Your task to perform on an android device: open a new tab in the chrome app Image 0: 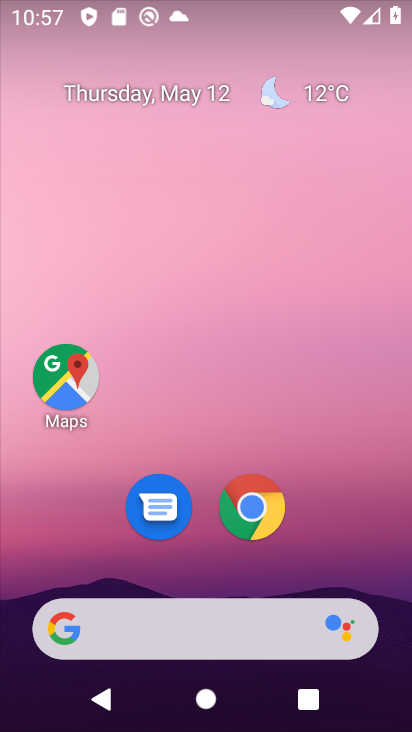
Step 0: click (246, 496)
Your task to perform on an android device: open a new tab in the chrome app Image 1: 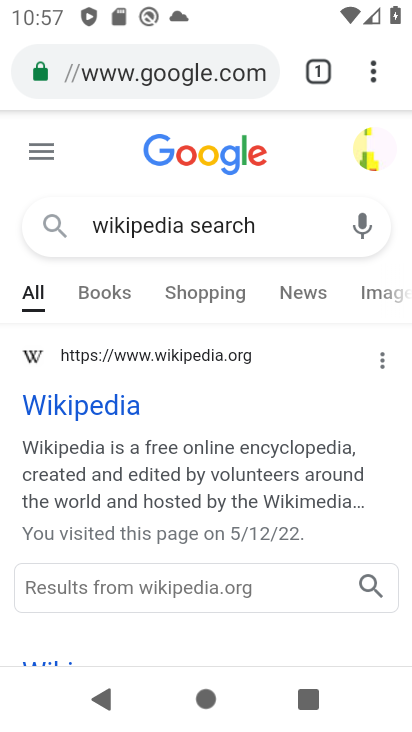
Step 1: click (370, 80)
Your task to perform on an android device: open a new tab in the chrome app Image 2: 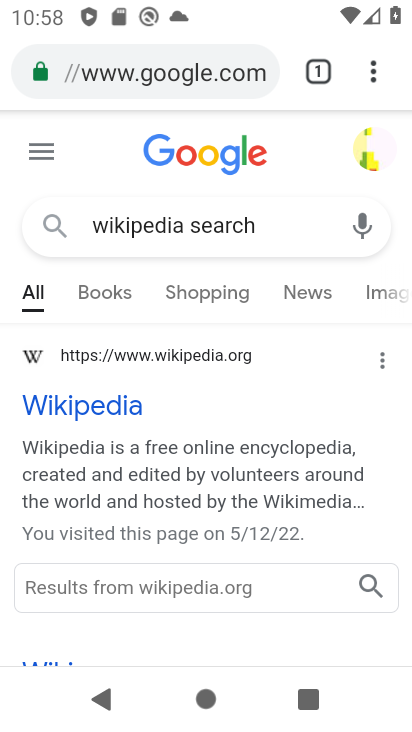
Step 2: click (375, 74)
Your task to perform on an android device: open a new tab in the chrome app Image 3: 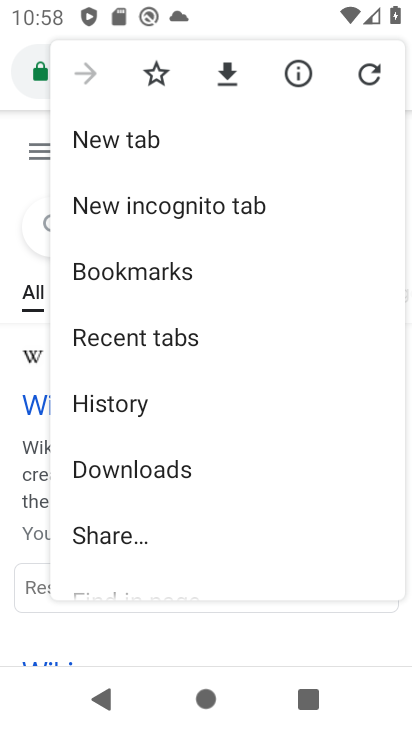
Step 3: click (123, 121)
Your task to perform on an android device: open a new tab in the chrome app Image 4: 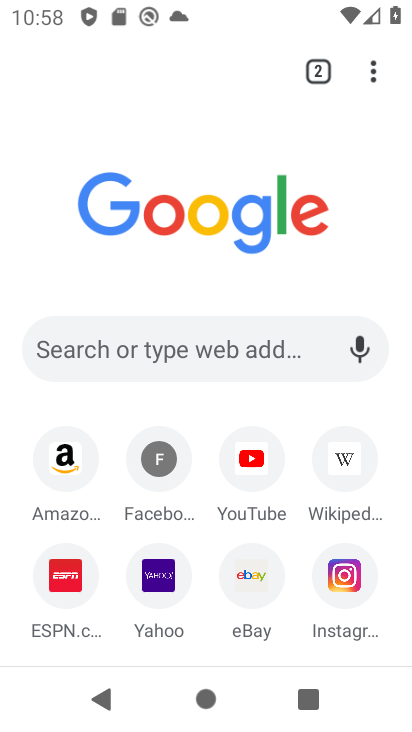
Step 4: task complete